Your task to perform on an android device: make emails show in primary in the gmail app Image 0: 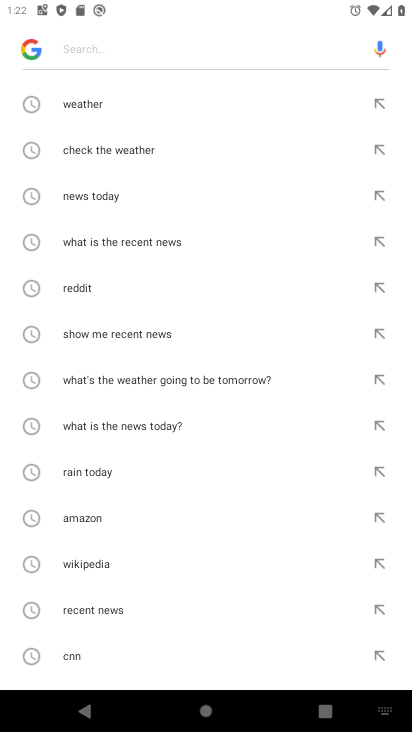
Step 0: press home button
Your task to perform on an android device: make emails show in primary in the gmail app Image 1: 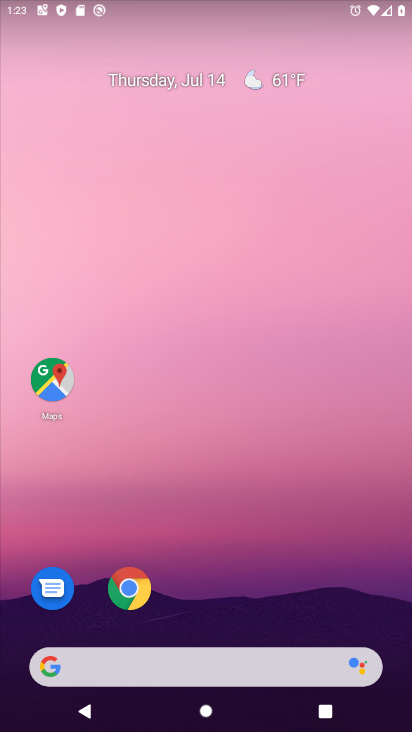
Step 1: drag from (190, 615) to (195, 277)
Your task to perform on an android device: make emails show in primary in the gmail app Image 2: 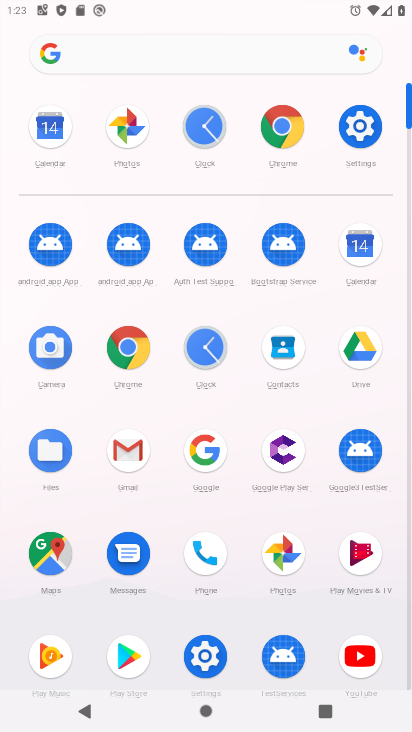
Step 2: click (116, 440)
Your task to perform on an android device: make emails show in primary in the gmail app Image 3: 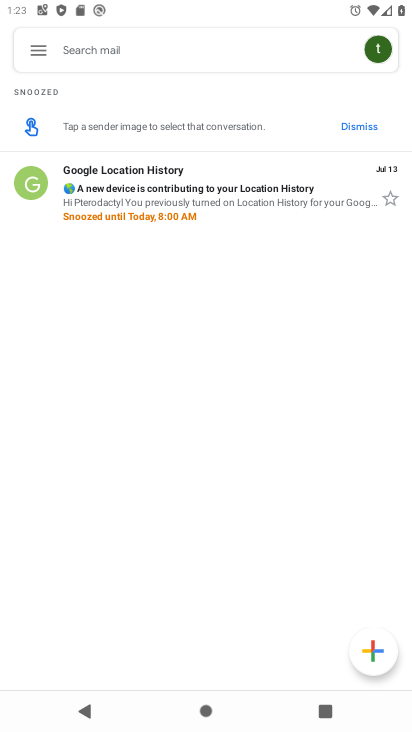
Step 3: click (32, 43)
Your task to perform on an android device: make emails show in primary in the gmail app Image 4: 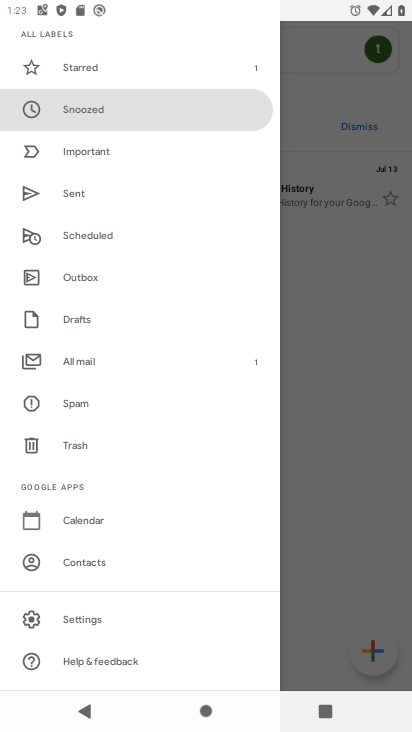
Step 4: click (95, 619)
Your task to perform on an android device: make emails show in primary in the gmail app Image 5: 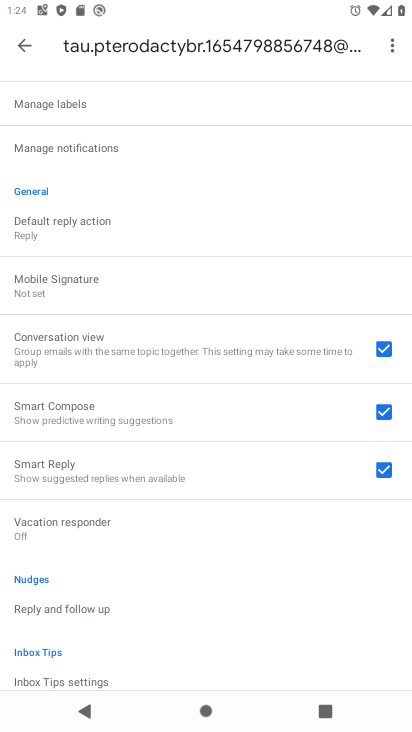
Step 5: drag from (144, 530) to (226, 175)
Your task to perform on an android device: make emails show in primary in the gmail app Image 6: 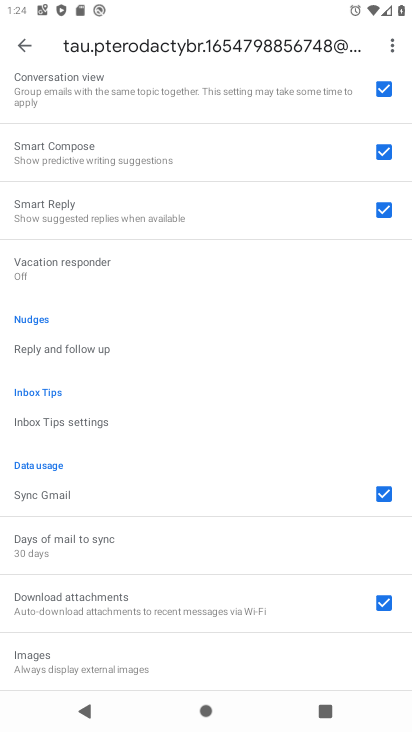
Step 6: drag from (161, 555) to (194, 235)
Your task to perform on an android device: make emails show in primary in the gmail app Image 7: 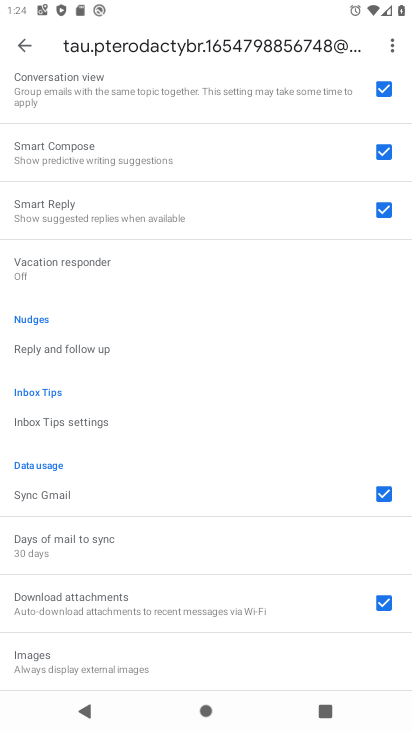
Step 7: drag from (168, 126) to (214, 628)
Your task to perform on an android device: make emails show in primary in the gmail app Image 8: 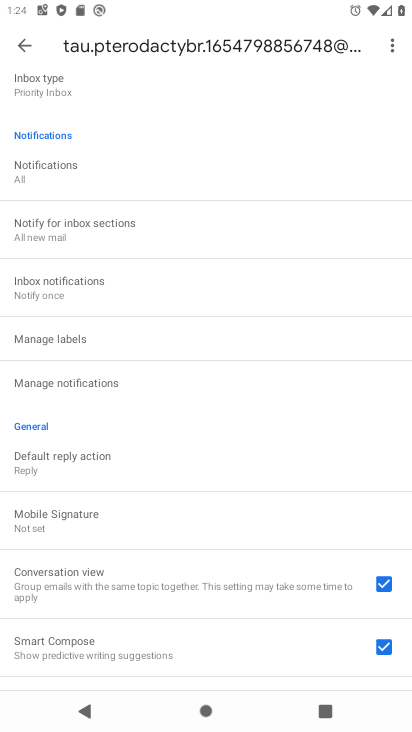
Step 8: drag from (194, 509) to (259, 134)
Your task to perform on an android device: make emails show in primary in the gmail app Image 9: 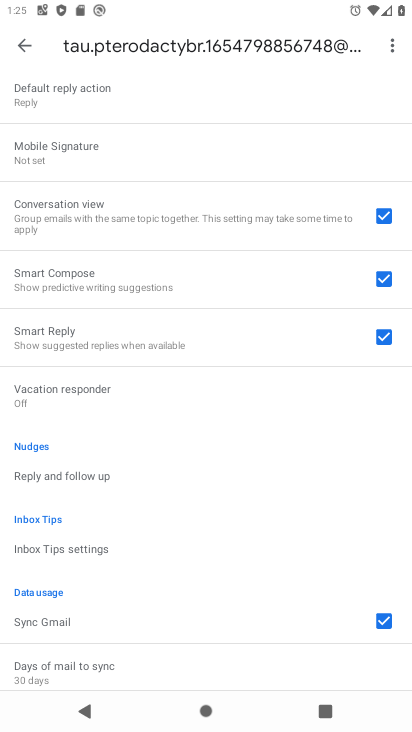
Step 9: drag from (232, 143) to (209, 651)
Your task to perform on an android device: make emails show in primary in the gmail app Image 10: 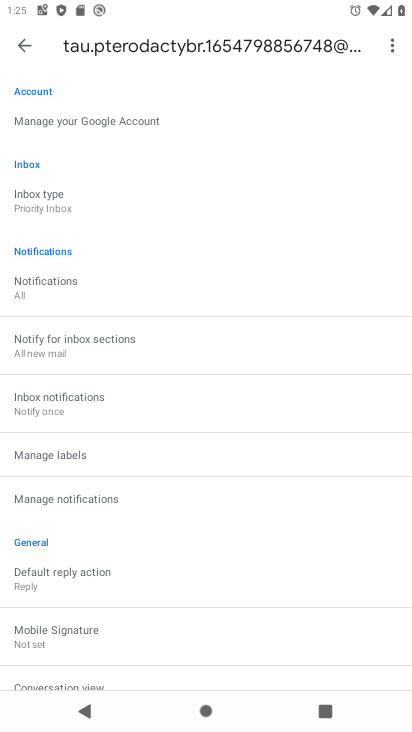
Step 10: drag from (170, 168) to (157, 570)
Your task to perform on an android device: make emails show in primary in the gmail app Image 11: 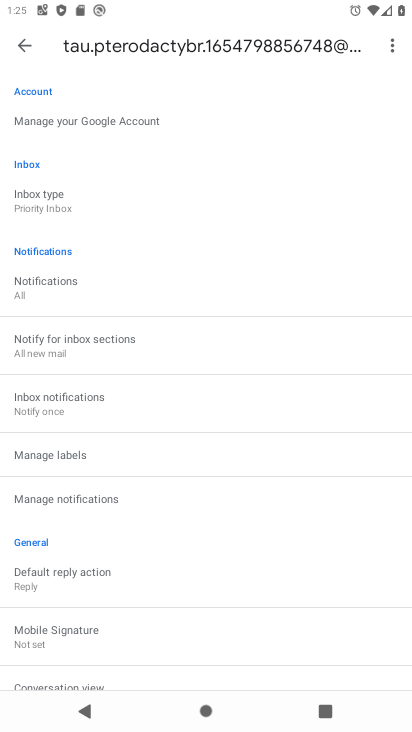
Step 11: drag from (146, 539) to (149, 634)
Your task to perform on an android device: make emails show in primary in the gmail app Image 12: 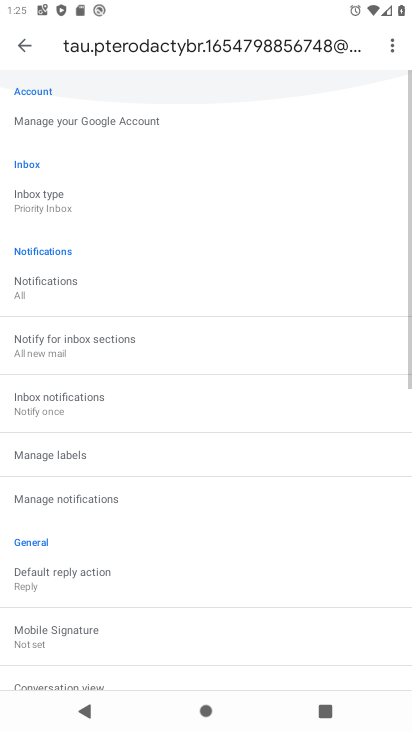
Step 12: drag from (132, 224) to (154, 589)
Your task to perform on an android device: make emails show in primary in the gmail app Image 13: 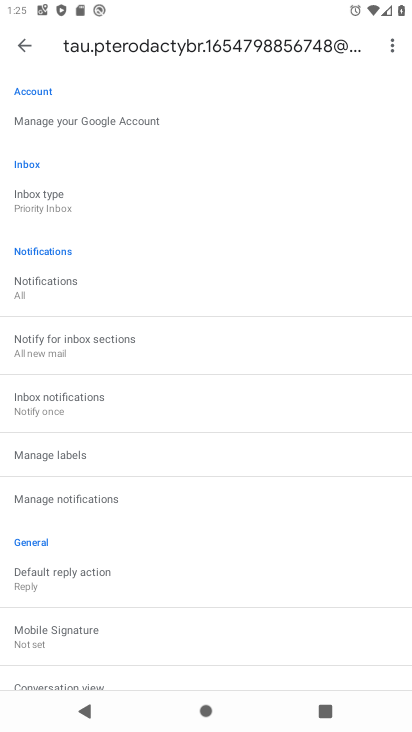
Step 13: drag from (185, 521) to (198, 243)
Your task to perform on an android device: make emails show in primary in the gmail app Image 14: 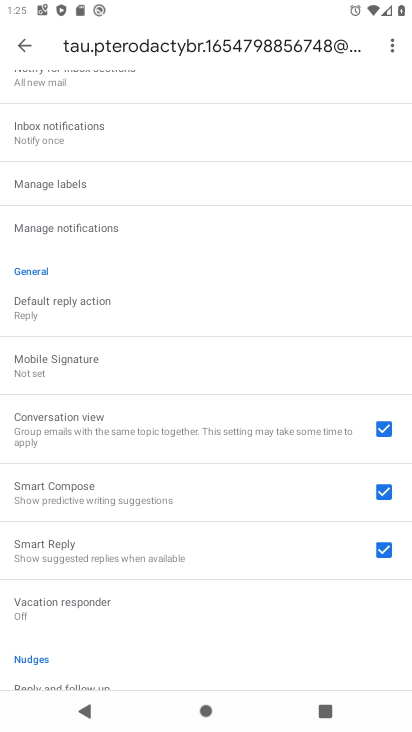
Step 14: click (91, 169)
Your task to perform on an android device: make emails show in primary in the gmail app Image 15: 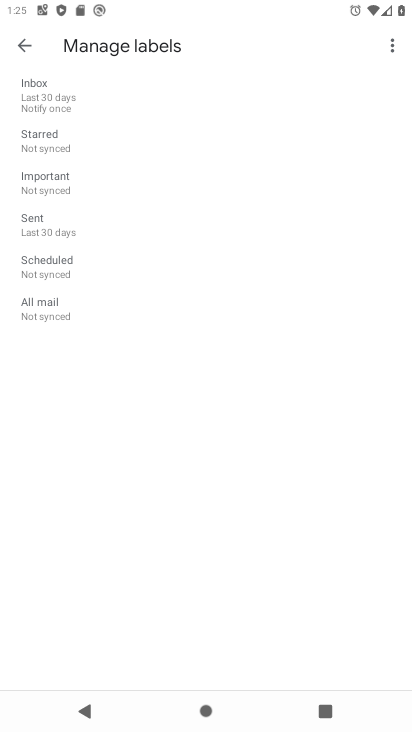
Step 15: click (25, 46)
Your task to perform on an android device: make emails show in primary in the gmail app Image 16: 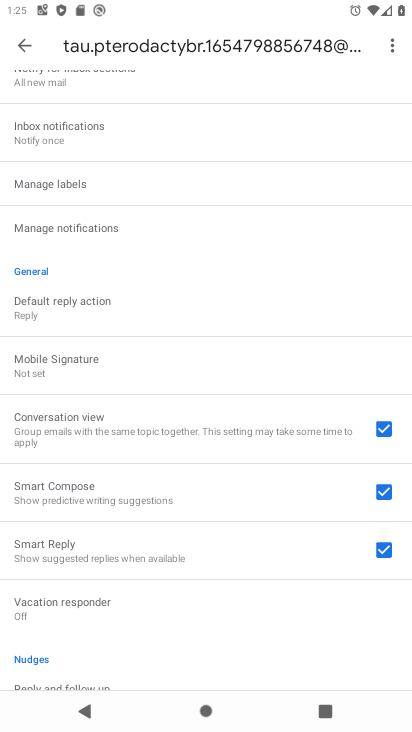
Step 16: task complete